Your task to perform on an android device: open a new tab in the chrome app Image 0: 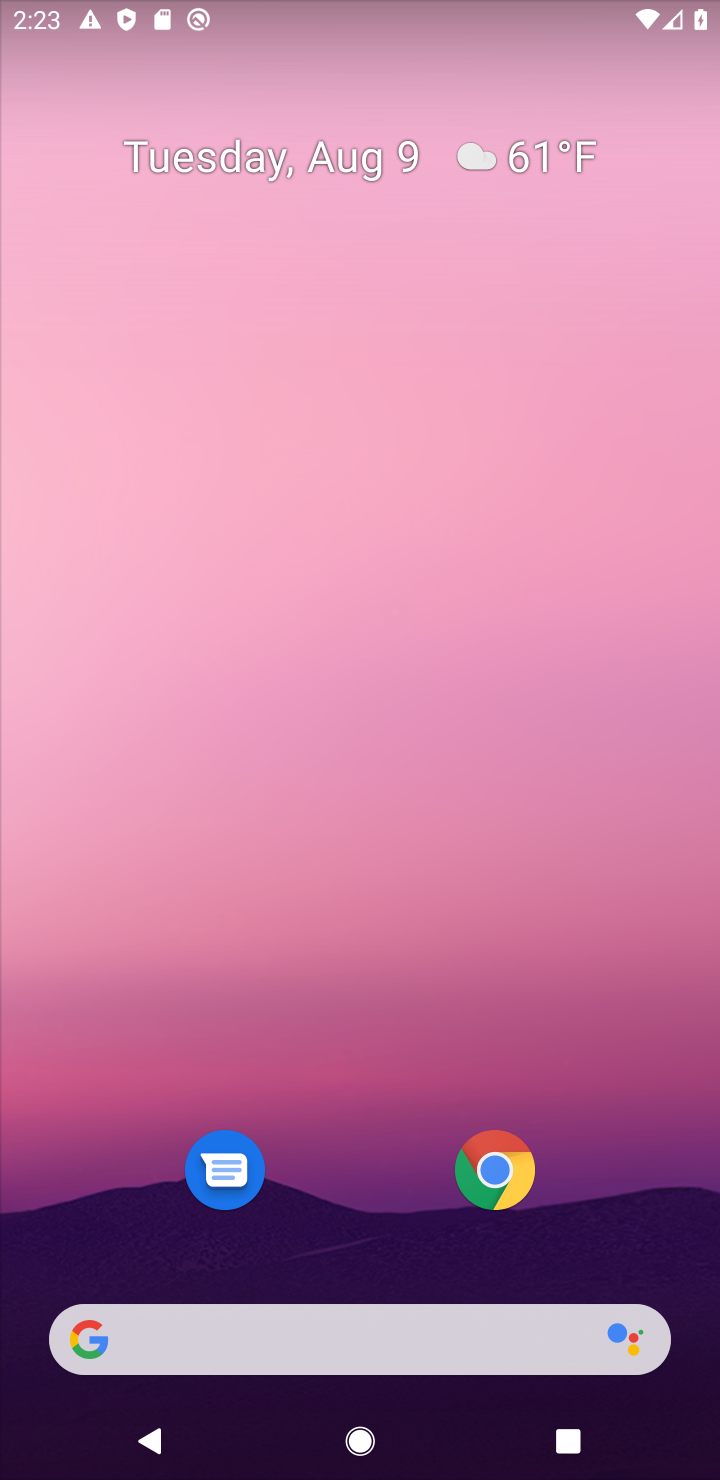
Step 0: click (505, 1193)
Your task to perform on an android device: open a new tab in the chrome app Image 1: 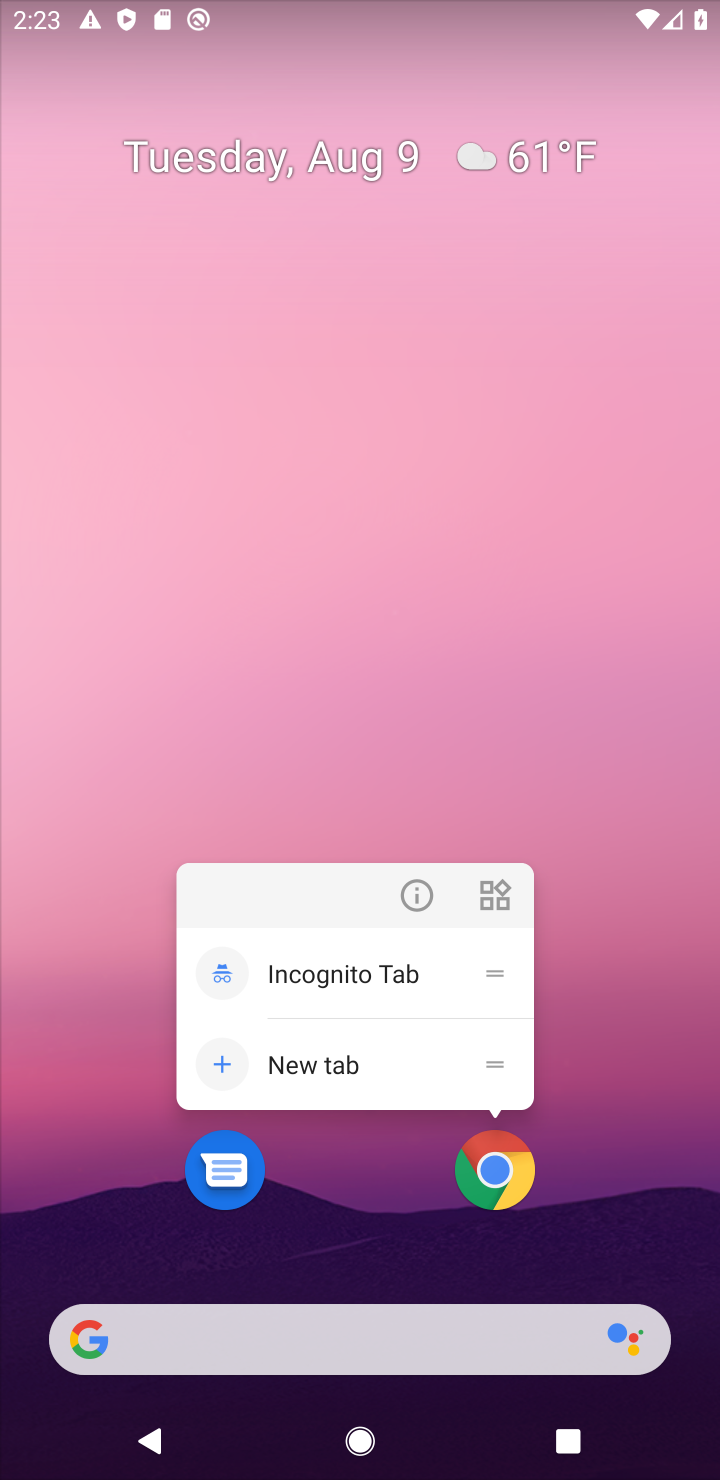
Step 1: click (481, 1196)
Your task to perform on an android device: open a new tab in the chrome app Image 2: 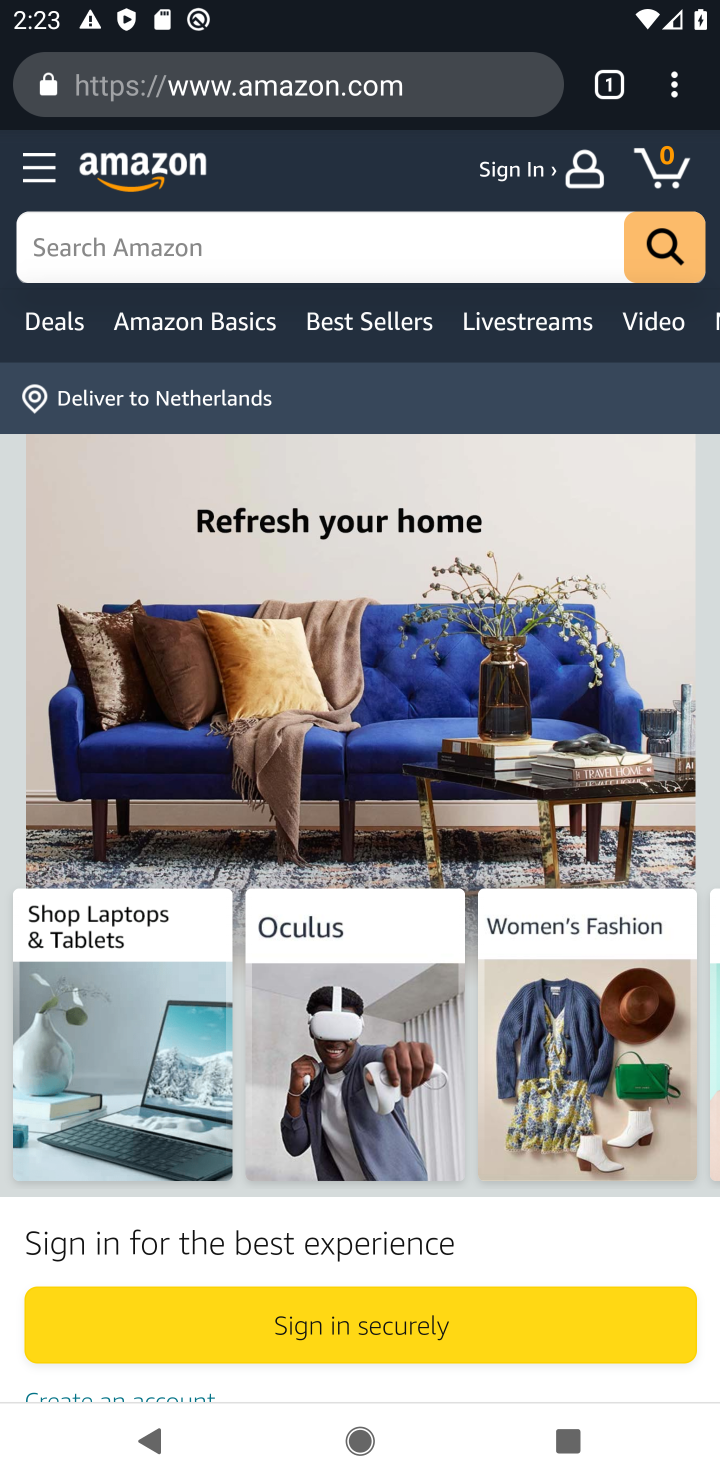
Step 2: click (606, 80)
Your task to perform on an android device: open a new tab in the chrome app Image 3: 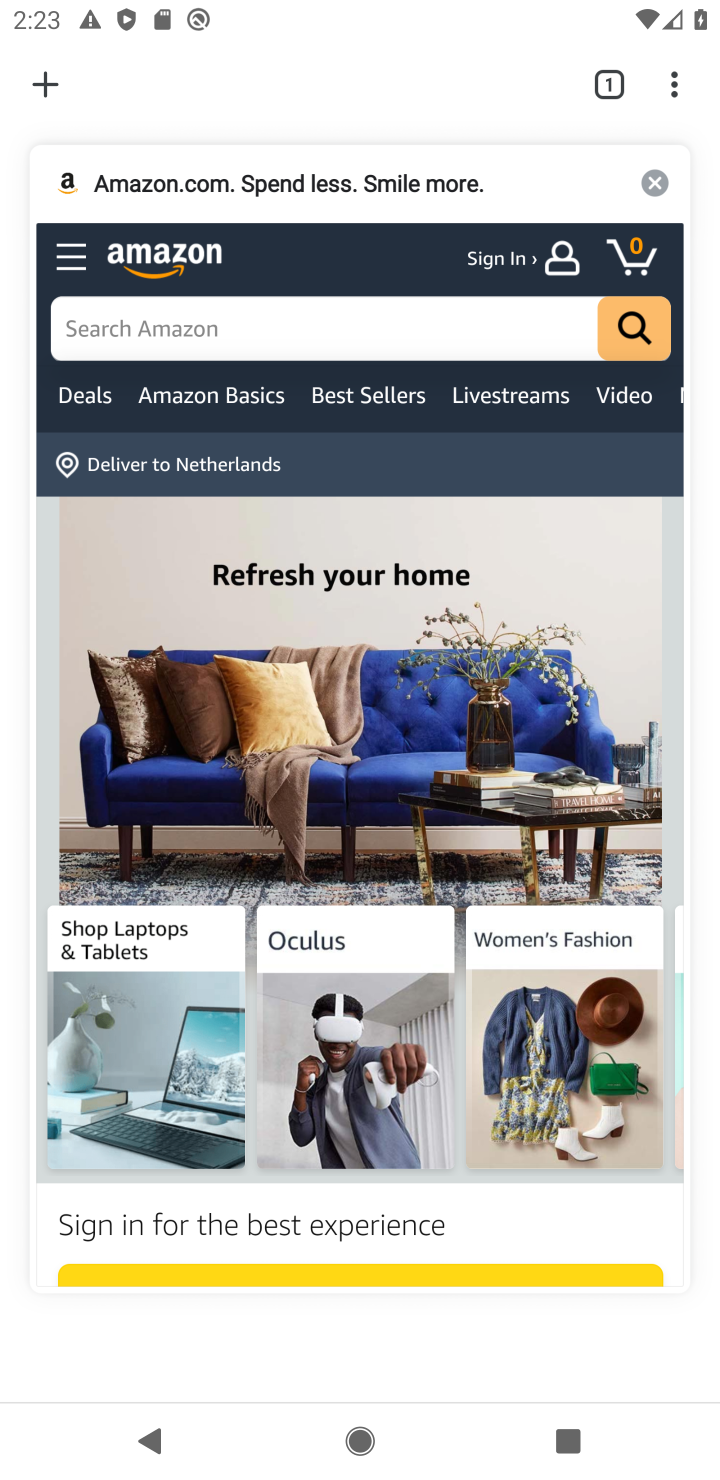
Step 3: click (60, 75)
Your task to perform on an android device: open a new tab in the chrome app Image 4: 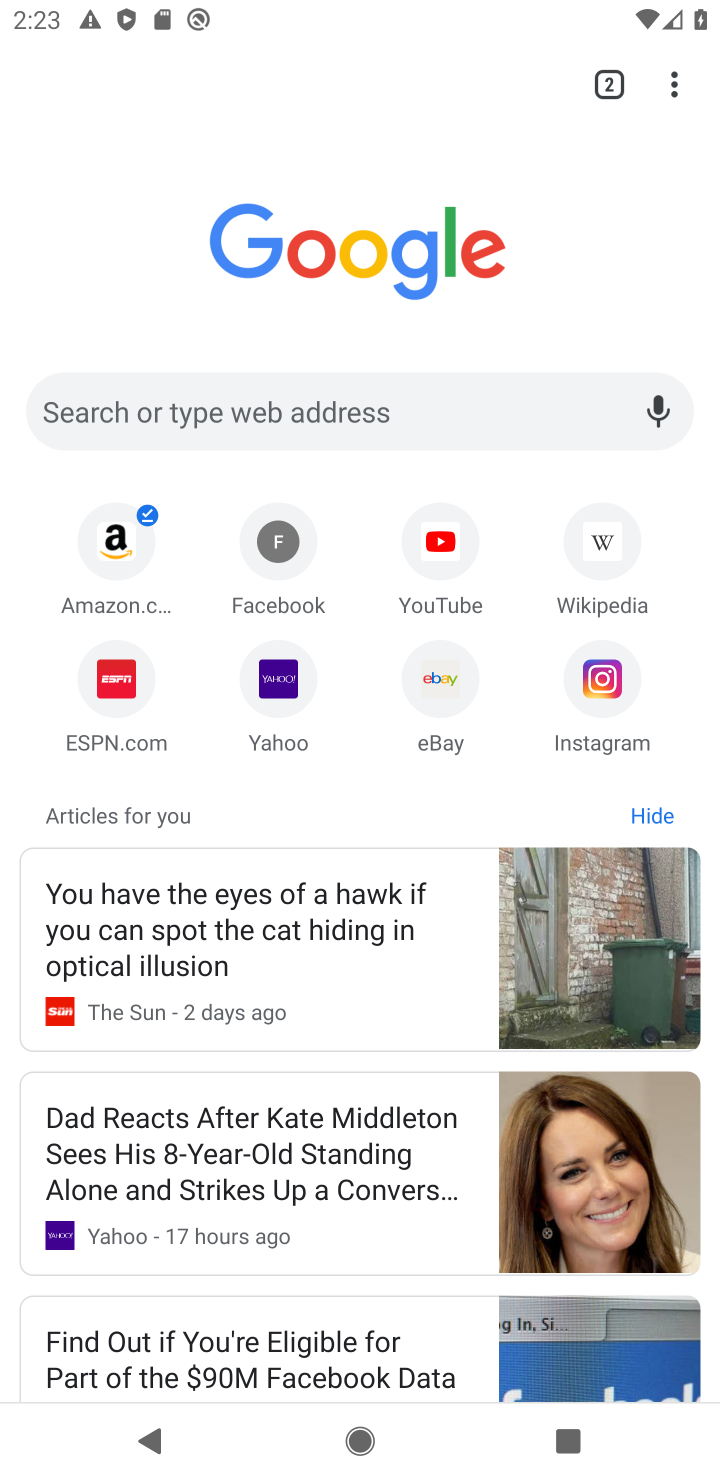
Step 4: task complete